Your task to perform on an android device: find snoozed emails in the gmail app Image 0: 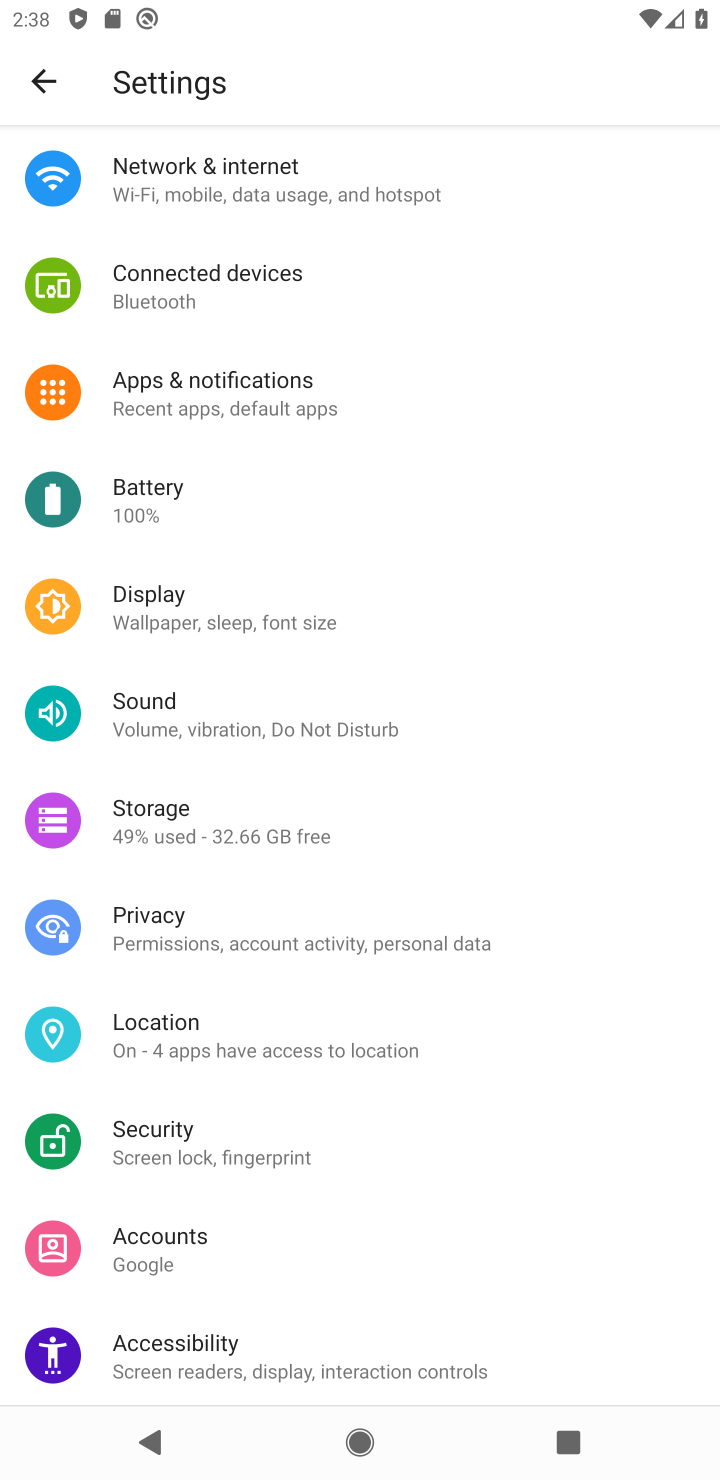
Step 0: press home button
Your task to perform on an android device: find snoozed emails in the gmail app Image 1: 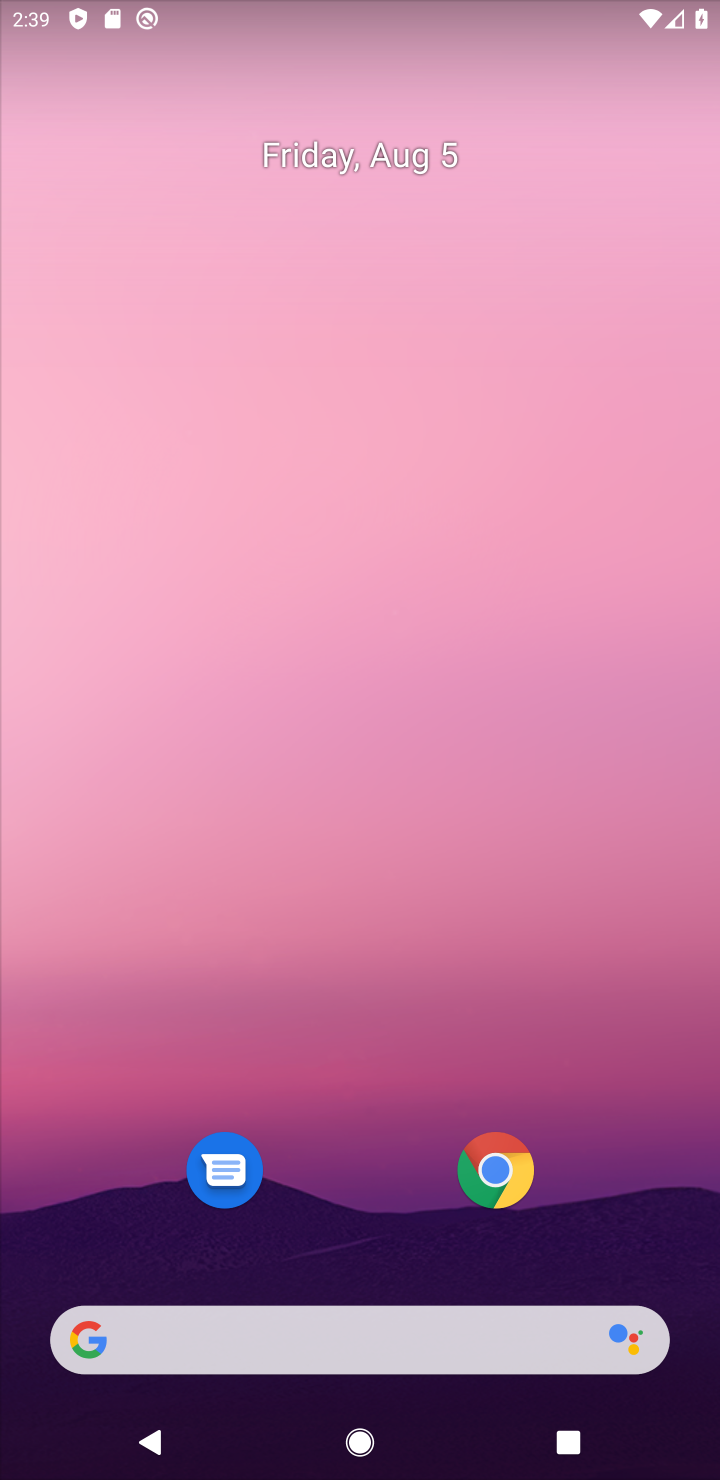
Step 1: drag from (366, 1121) to (363, 150)
Your task to perform on an android device: find snoozed emails in the gmail app Image 2: 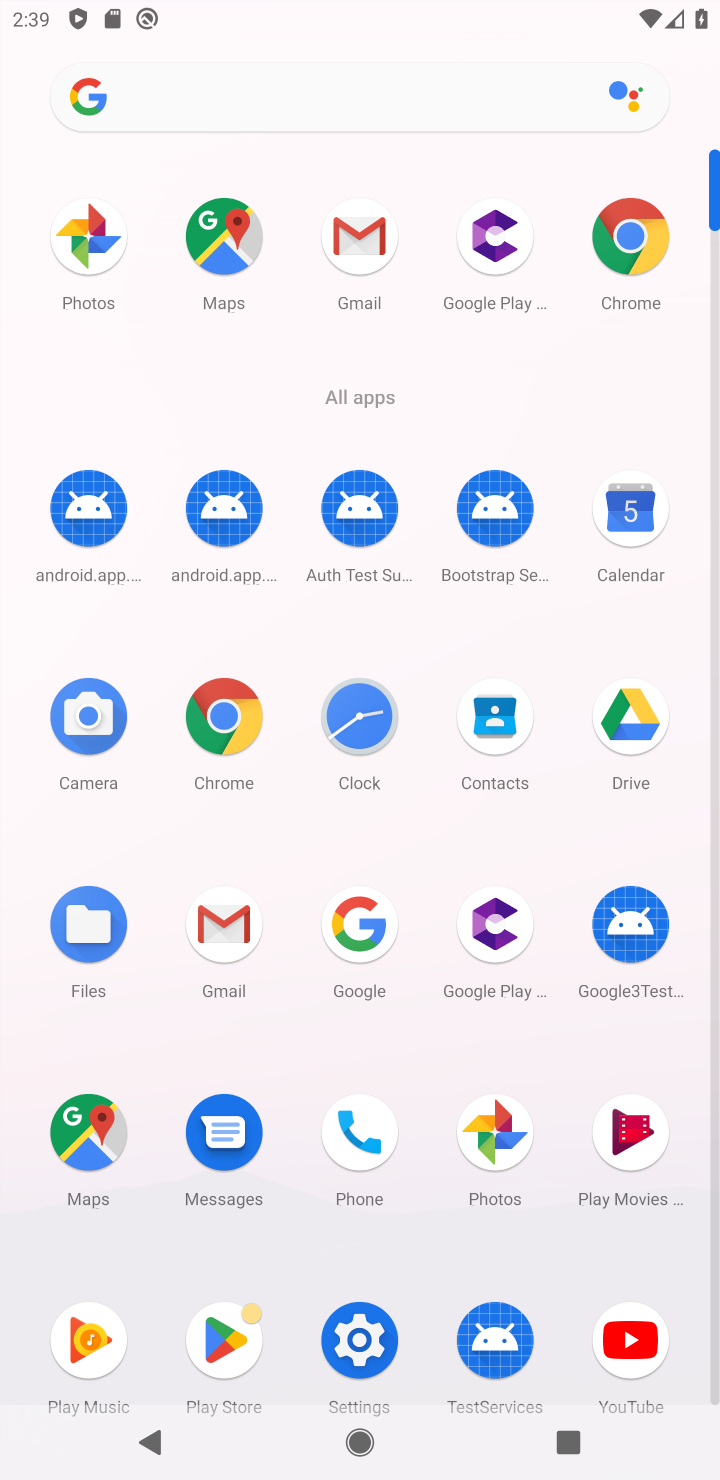
Step 2: click (232, 932)
Your task to perform on an android device: find snoozed emails in the gmail app Image 3: 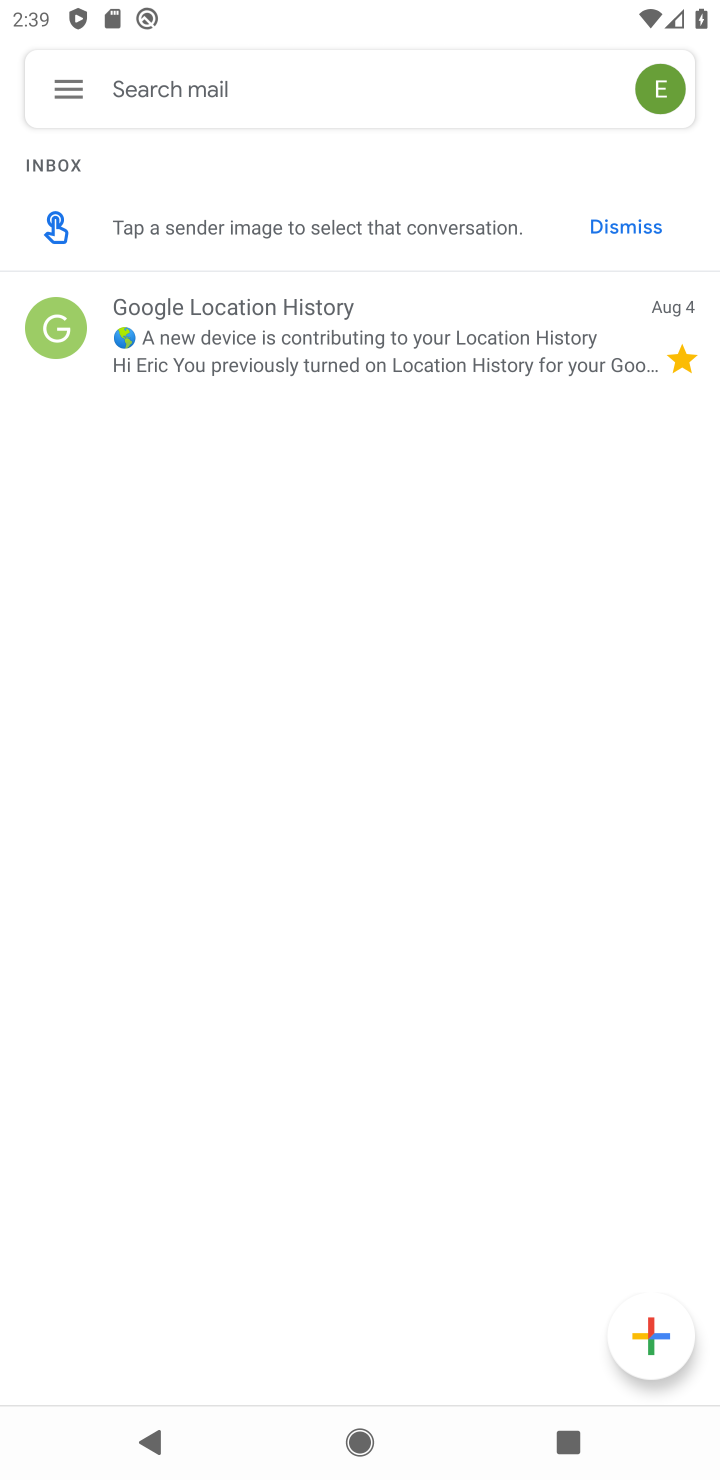
Step 3: task complete